Your task to perform on an android device: set the stopwatch Image 0: 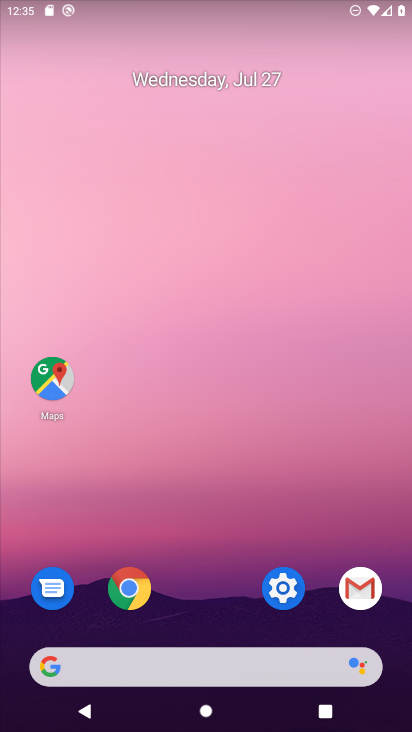
Step 0: press home button
Your task to perform on an android device: set the stopwatch Image 1: 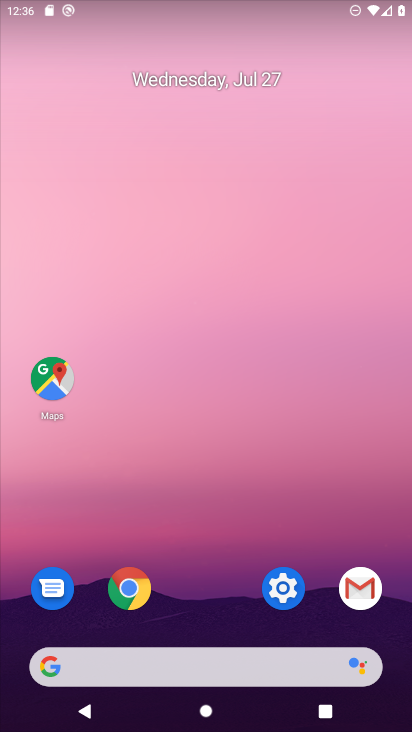
Step 1: click (278, 591)
Your task to perform on an android device: set the stopwatch Image 2: 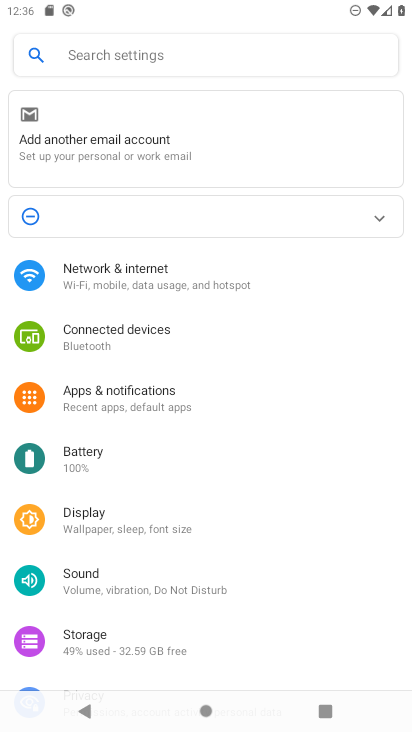
Step 2: click (120, 63)
Your task to perform on an android device: set the stopwatch Image 3: 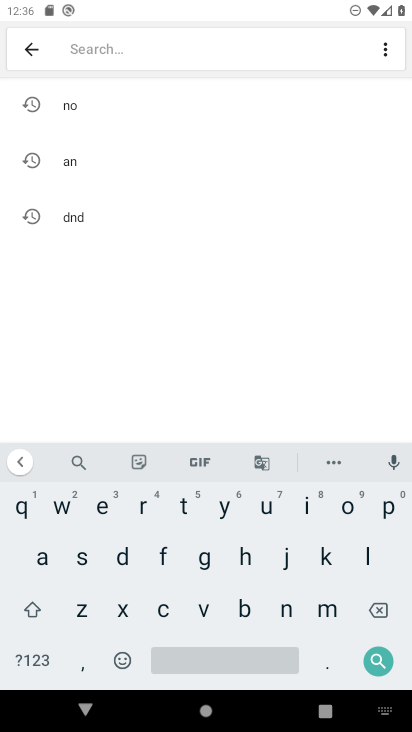
Step 3: press home button
Your task to perform on an android device: set the stopwatch Image 4: 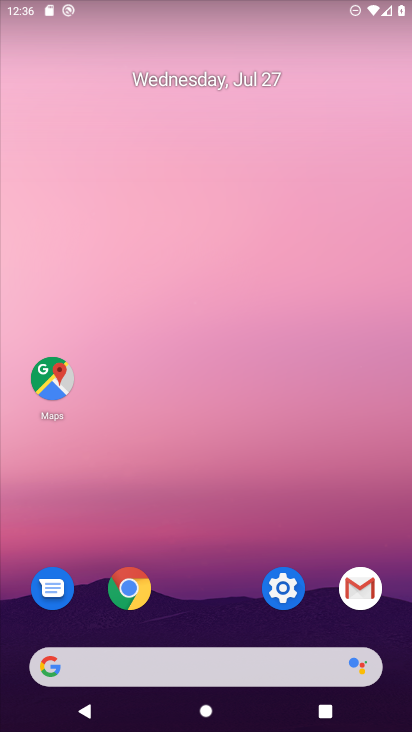
Step 4: drag from (273, 696) to (259, 108)
Your task to perform on an android device: set the stopwatch Image 5: 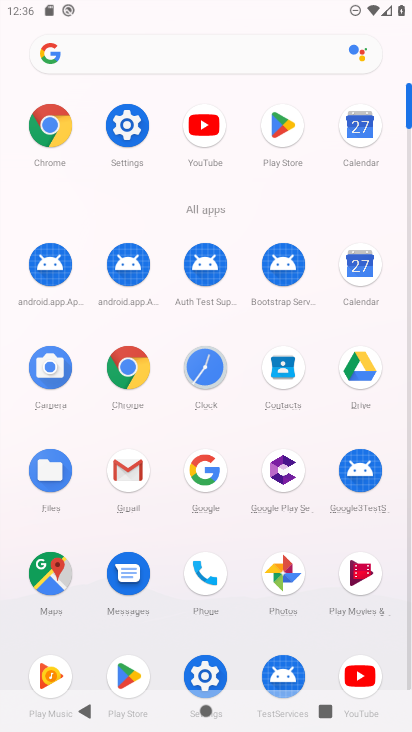
Step 5: click (206, 373)
Your task to perform on an android device: set the stopwatch Image 6: 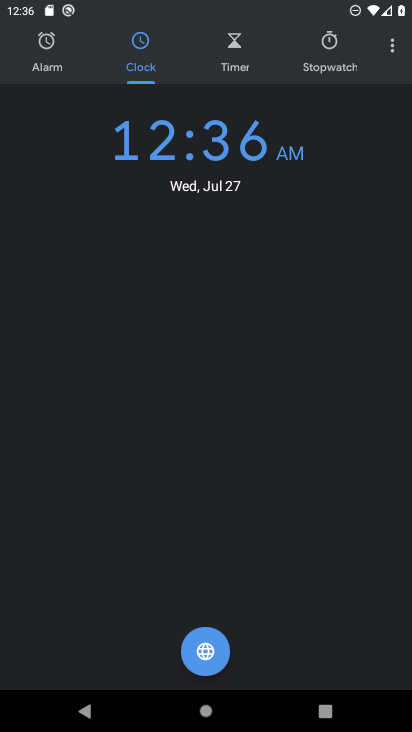
Step 6: click (326, 57)
Your task to perform on an android device: set the stopwatch Image 7: 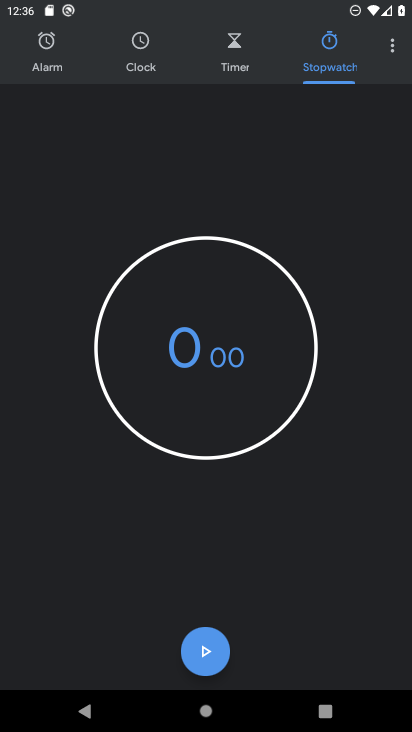
Step 7: click (204, 660)
Your task to perform on an android device: set the stopwatch Image 8: 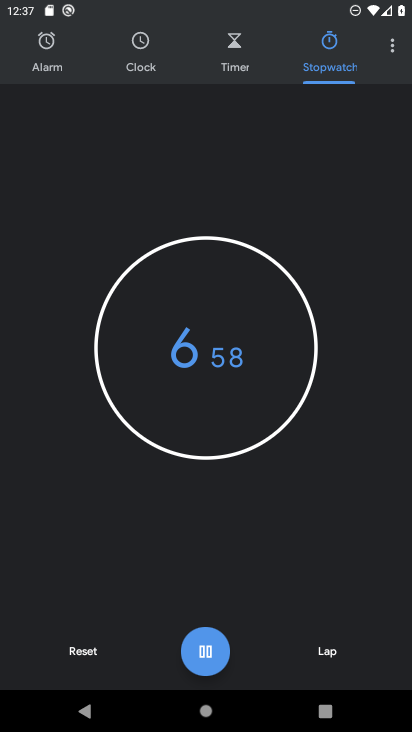
Step 8: click (203, 655)
Your task to perform on an android device: set the stopwatch Image 9: 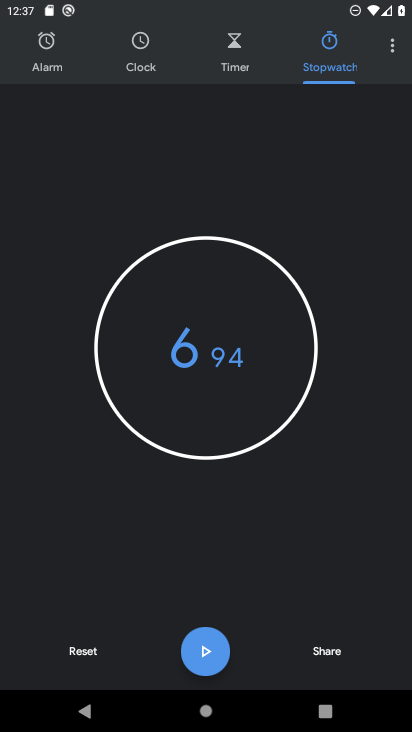
Step 9: task complete